Your task to perform on an android device: Open settings Image 0: 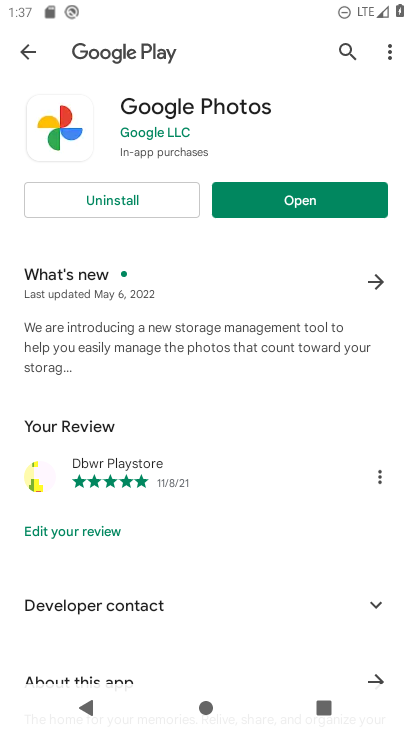
Step 0: press home button
Your task to perform on an android device: Open settings Image 1: 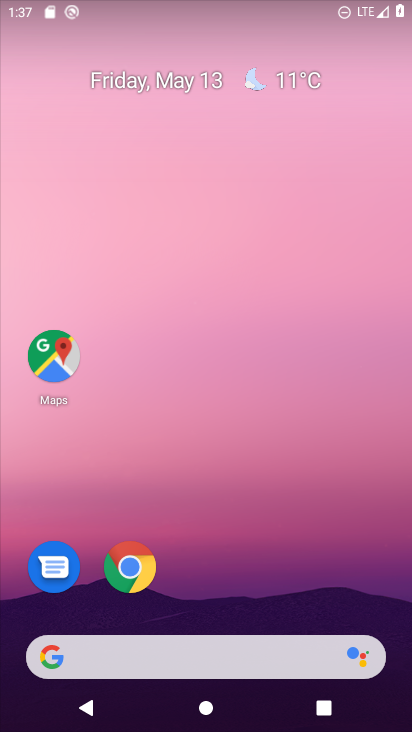
Step 1: drag from (221, 607) to (246, 146)
Your task to perform on an android device: Open settings Image 2: 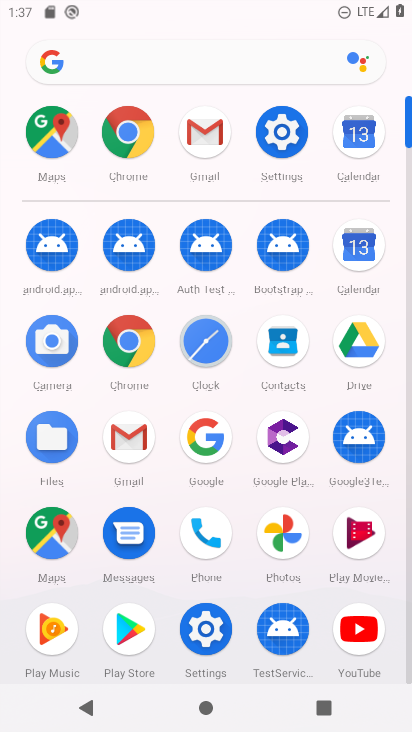
Step 2: click (277, 125)
Your task to perform on an android device: Open settings Image 3: 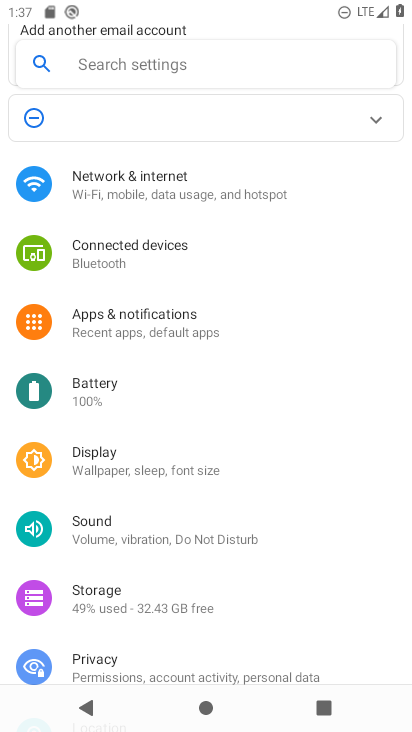
Step 3: drag from (207, 604) to (217, 271)
Your task to perform on an android device: Open settings Image 4: 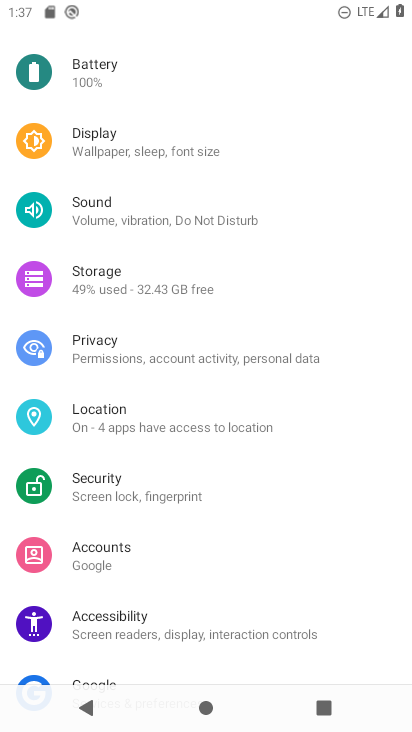
Step 4: click (217, 185)
Your task to perform on an android device: Open settings Image 5: 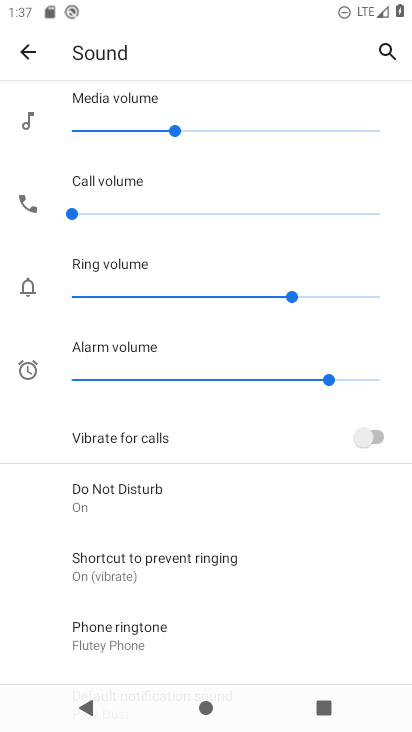
Step 5: click (42, 56)
Your task to perform on an android device: Open settings Image 6: 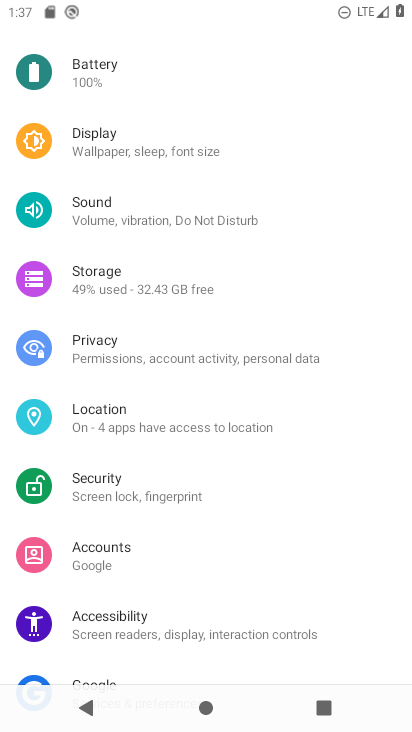
Step 6: task complete